Your task to perform on an android device: change text size in settings app Image 0: 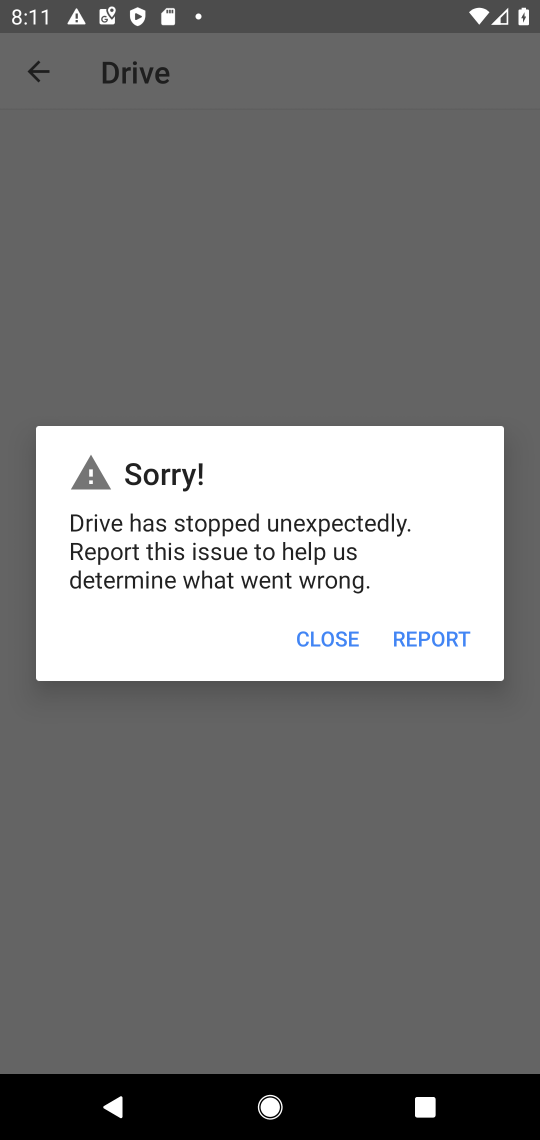
Step 0: press home button
Your task to perform on an android device: change text size in settings app Image 1: 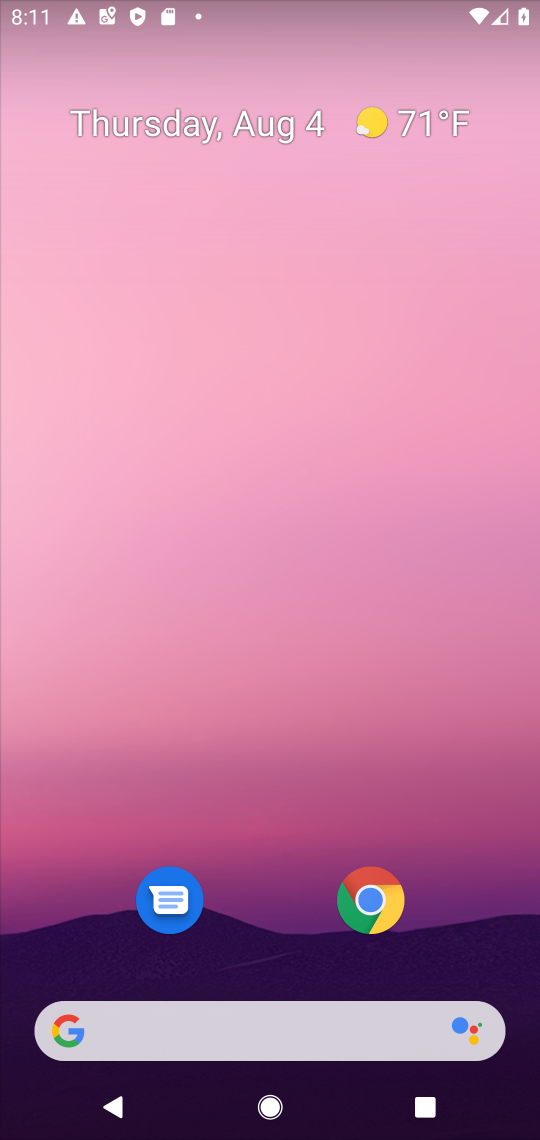
Step 1: click (300, 360)
Your task to perform on an android device: change text size in settings app Image 2: 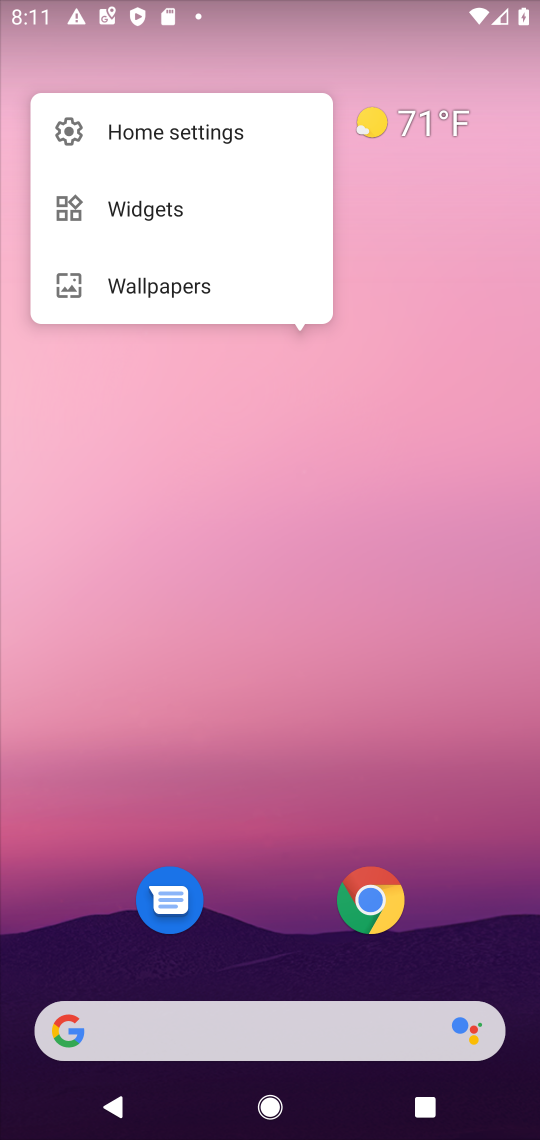
Step 2: click (253, 933)
Your task to perform on an android device: change text size in settings app Image 3: 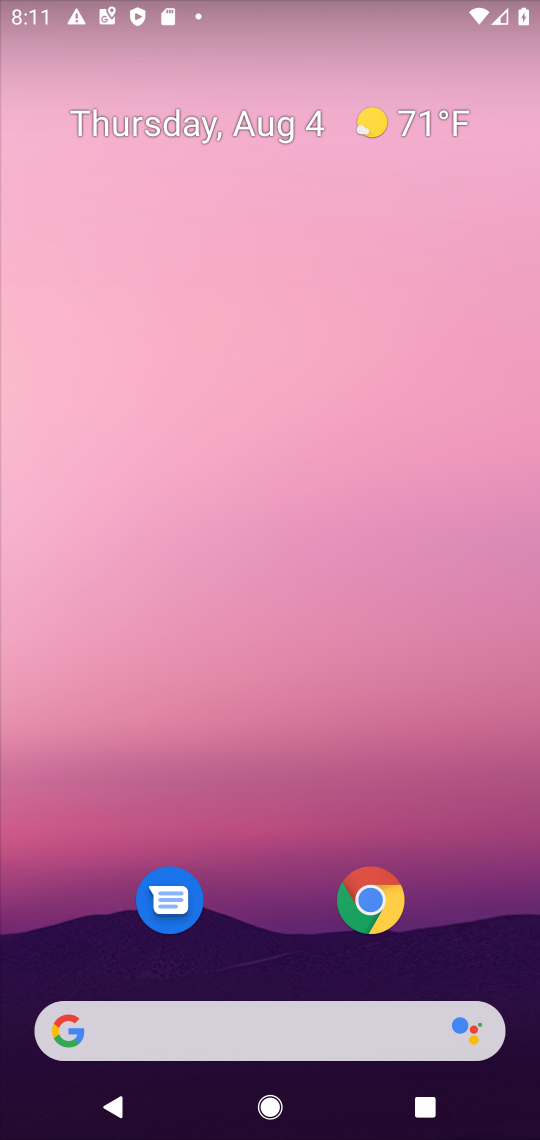
Step 3: drag from (253, 927) to (265, 70)
Your task to perform on an android device: change text size in settings app Image 4: 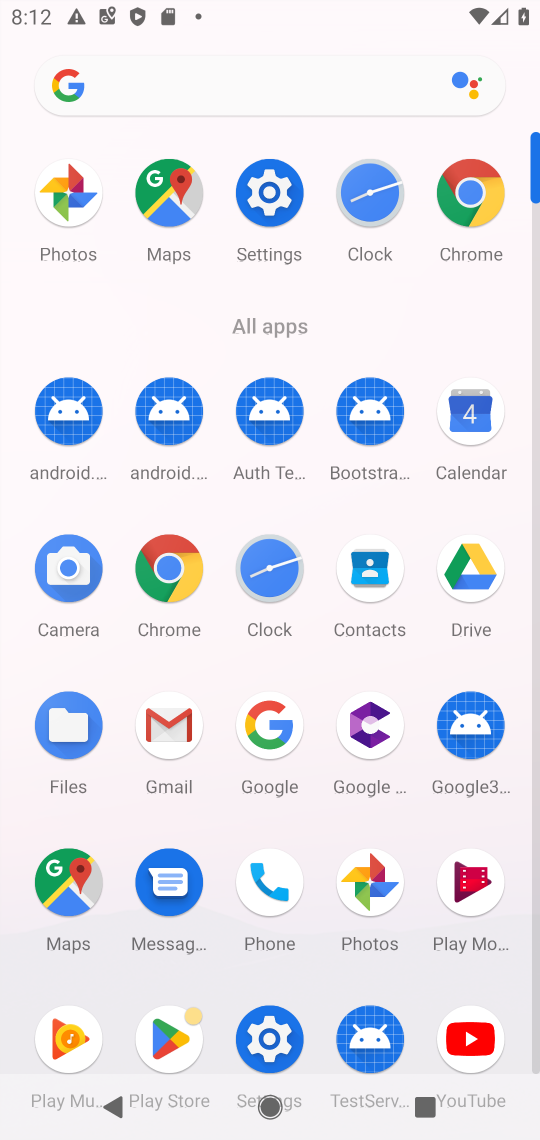
Step 4: click (270, 198)
Your task to perform on an android device: change text size in settings app Image 5: 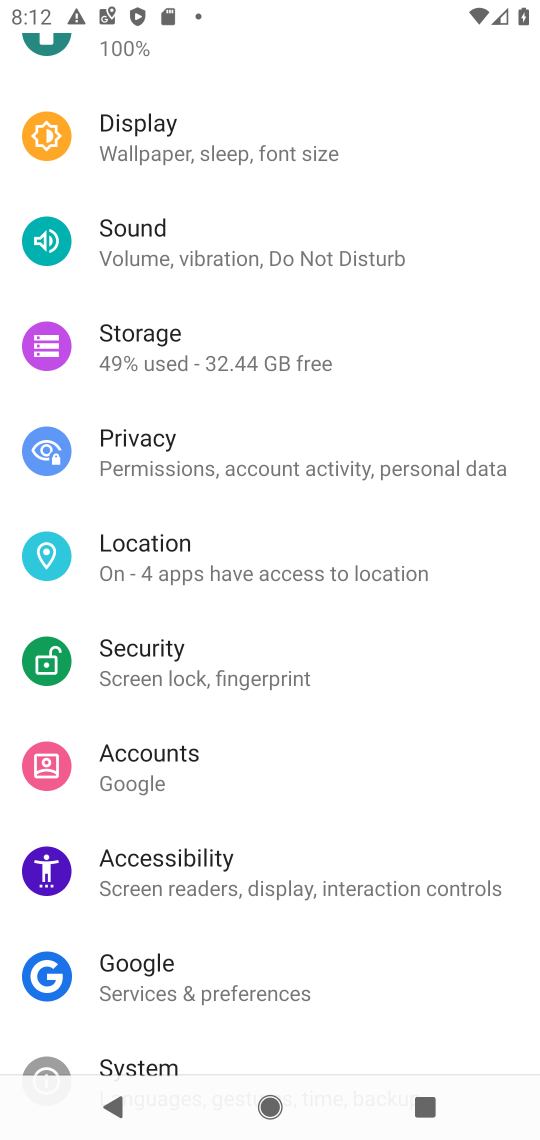
Step 5: click (125, 142)
Your task to perform on an android device: change text size in settings app Image 6: 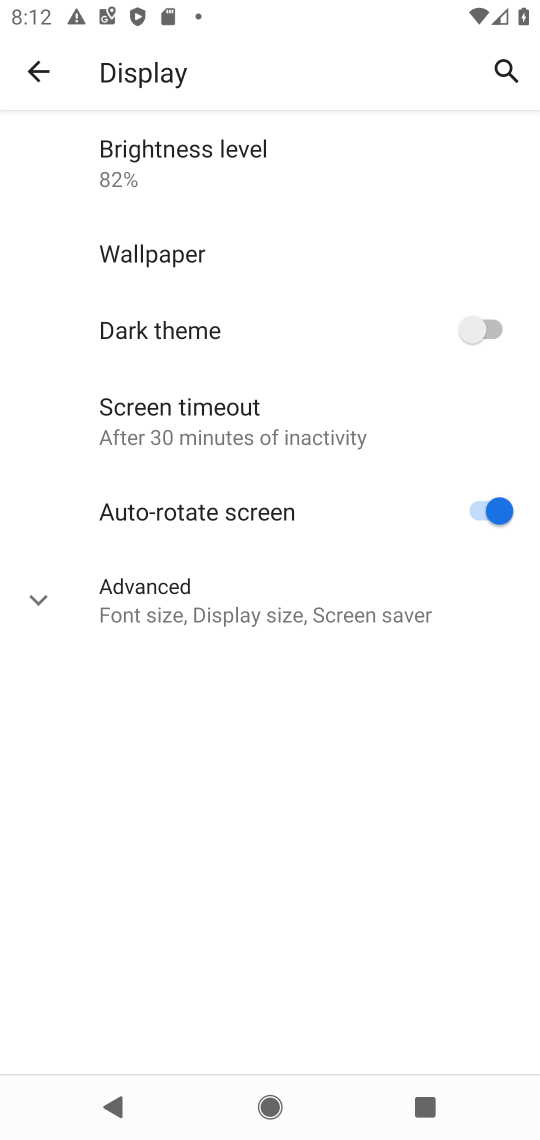
Step 6: click (164, 608)
Your task to perform on an android device: change text size in settings app Image 7: 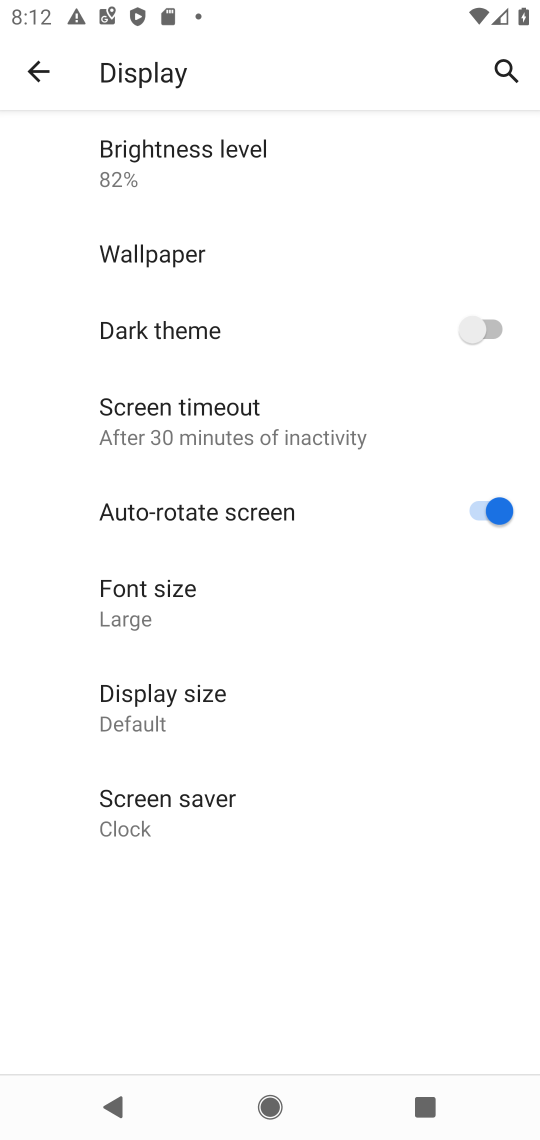
Step 7: click (164, 598)
Your task to perform on an android device: change text size in settings app Image 8: 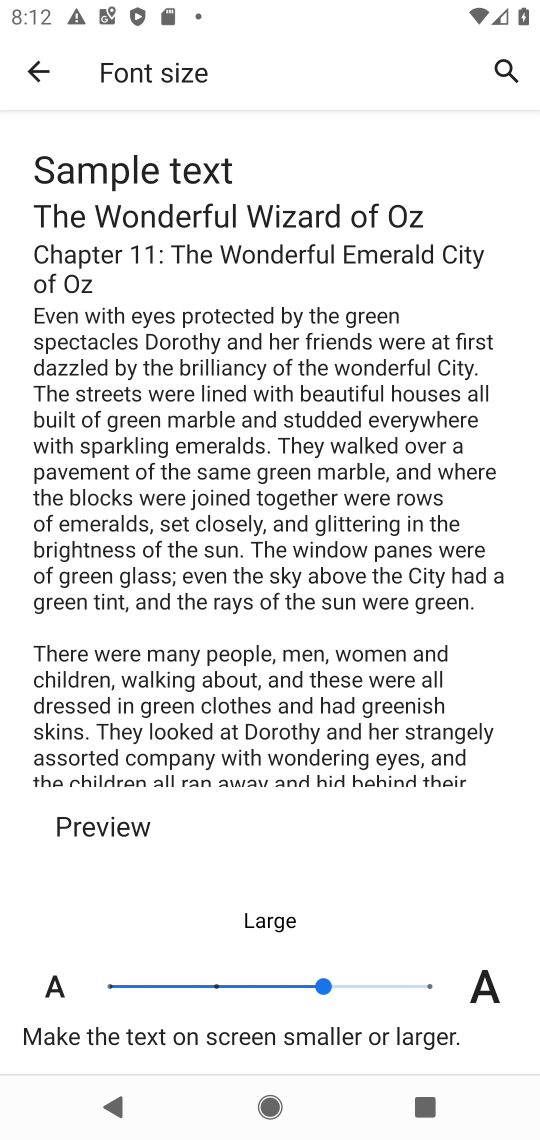
Step 8: click (228, 983)
Your task to perform on an android device: change text size in settings app Image 9: 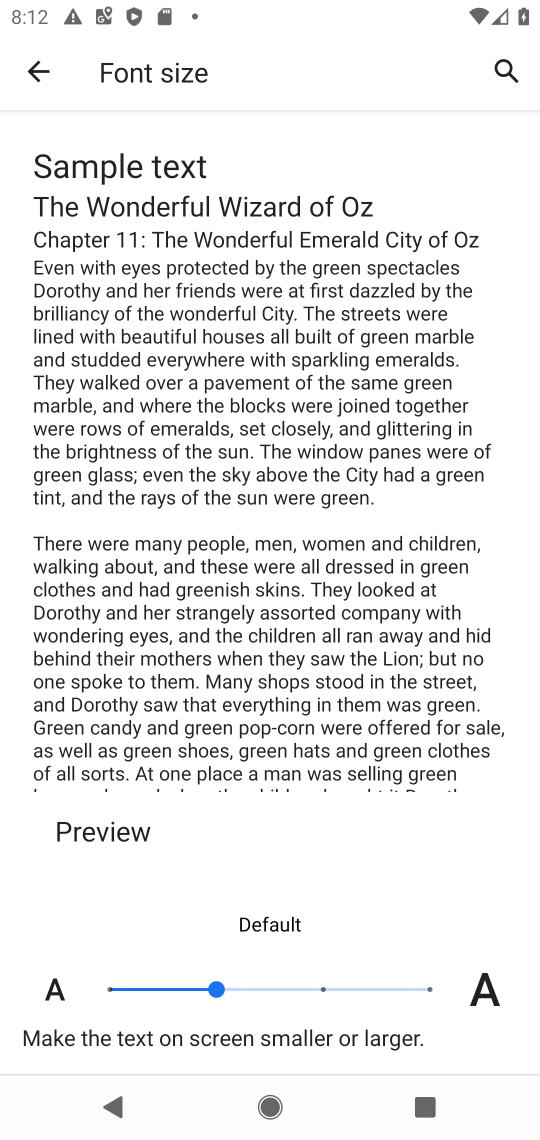
Step 9: task complete